Your task to perform on an android device: When is my next appointment? Image 0: 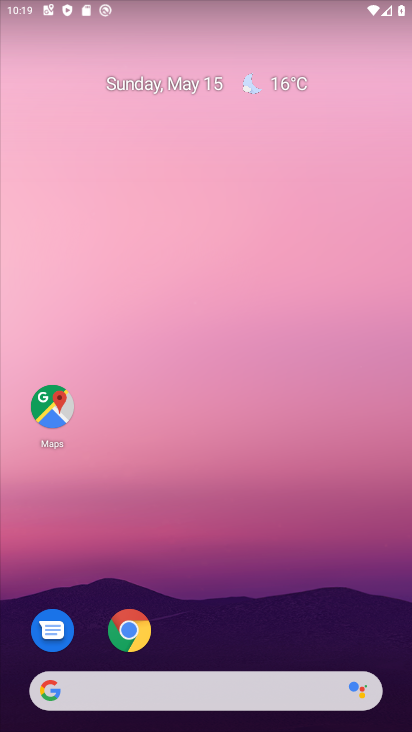
Step 0: click (232, 122)
Your task to perform on an android device: When is my next appointment? Image 1: 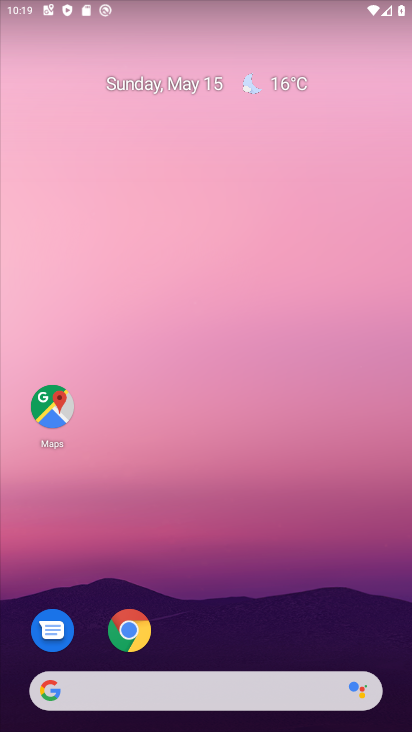
Step 1: click (228, 182)
Your task to perform on an android device: When is my next appointment? Image 2: 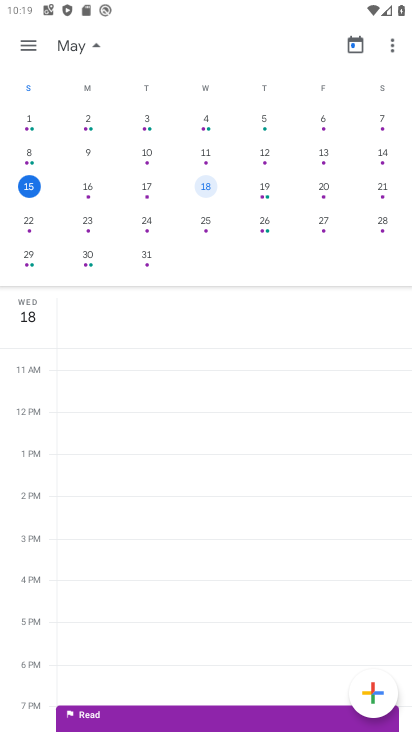
Step 2: click (28, 42)
Your task to perform on an android device: When is my next appointment? Image 3: 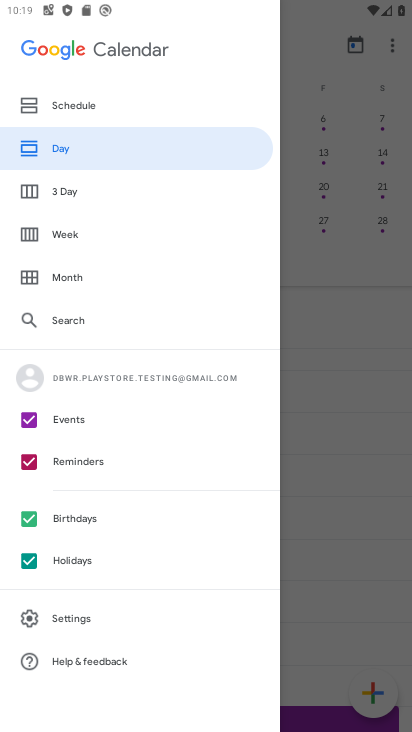
Step 3: click (84, 108)
Your task to perform on an android device: When is my next appointment? Image 4: 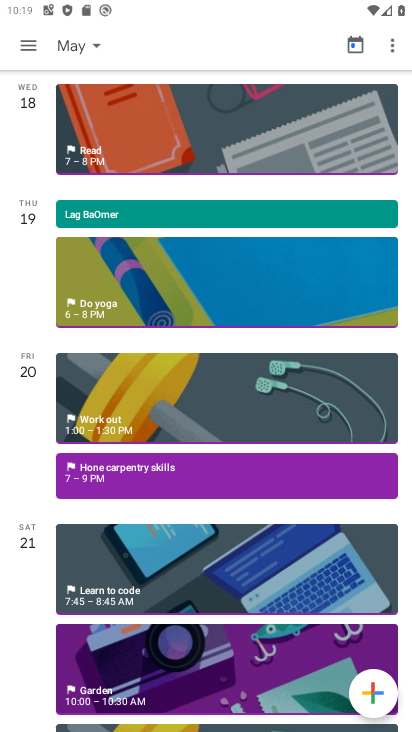
Step 4: task complete